Your task to perform on an android device: read, delete, or share a saved page in the chrome app Image 0: 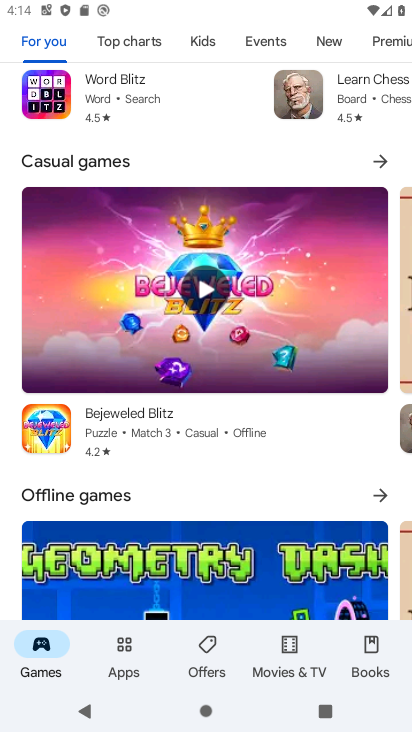
Step 0: press home button
Your task to perform on an android device: read, delete, or share a saved page in the chrome app Image 1: 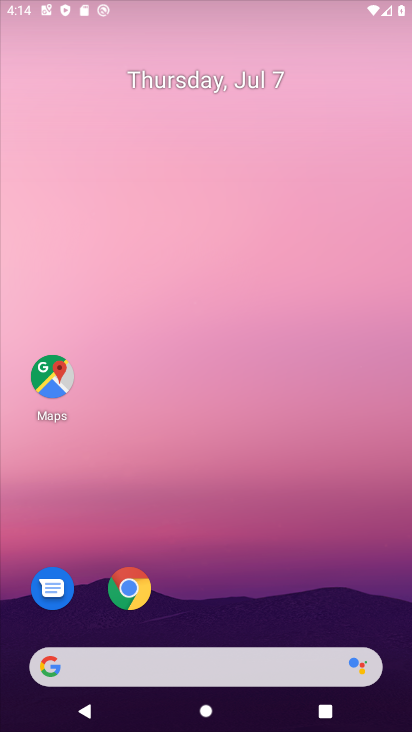
Step 1: drag from (270, 674) to (304, 133)
Your task to perform on an android device: read, delete, or share a saved page in the chrome app Image 2: 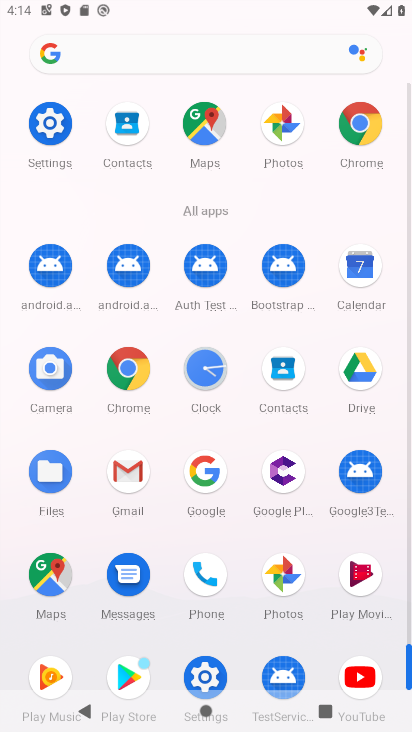
Step 2: click (144, 367)
Your task to perform on an android device: read, delete, or share a saved page in the chrome app Image 3: 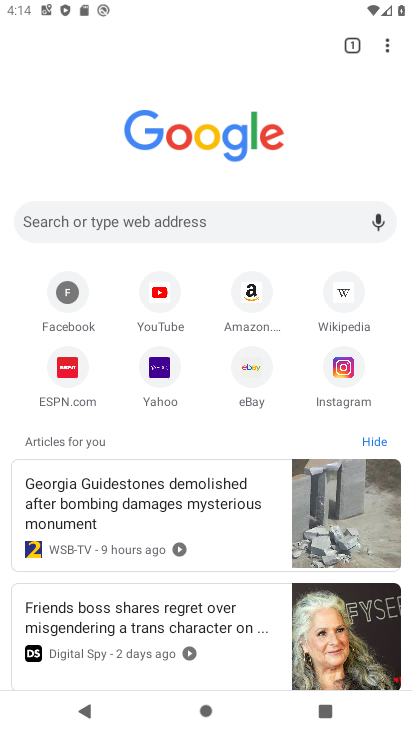
Step 3: click (381, 42)
Your task to perform on an android device: read, delete, or share a saved page in the chrome app Image 4: 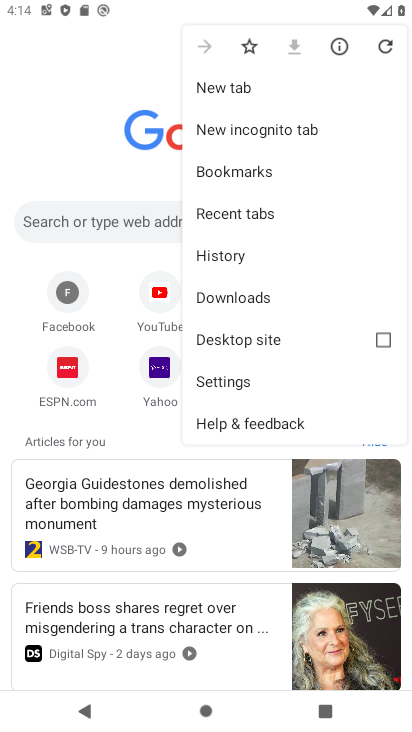
Step 4: click (244, 291)
Your task to perform on an android device: read, delete, or share a saved page in the chrome app Image 5: 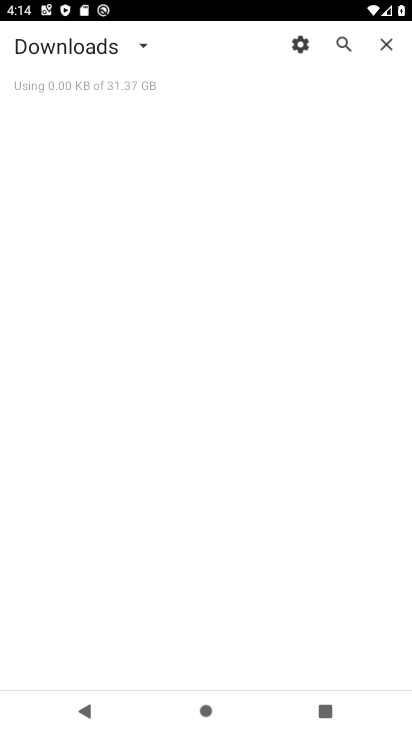
Step 5: click (137, 41)
Your task to perform on an android device: read, delete, or share a saved page in the chrome app Image 6: 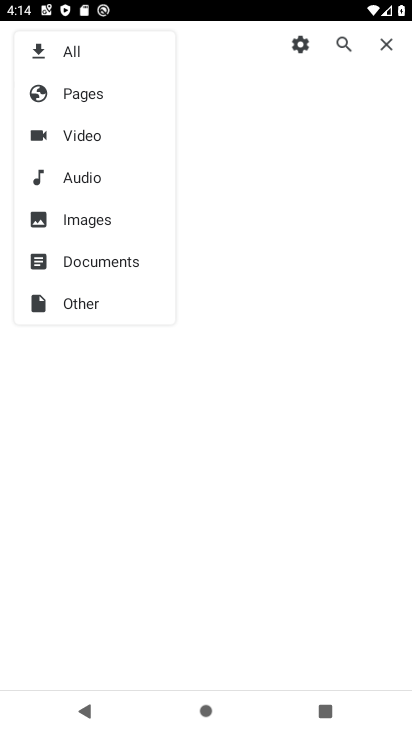
Step 6: task complete